Your task to perform on an android device: make emails show in primary in the gmail app Image 0: 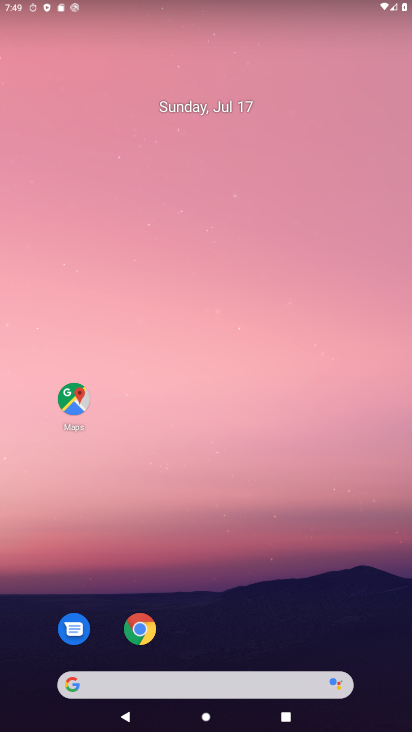
Step 0: drag from (247, 520) to (157, 115)
Your task to perform on an android device: make emails show in primary in the gmail app Image 1: 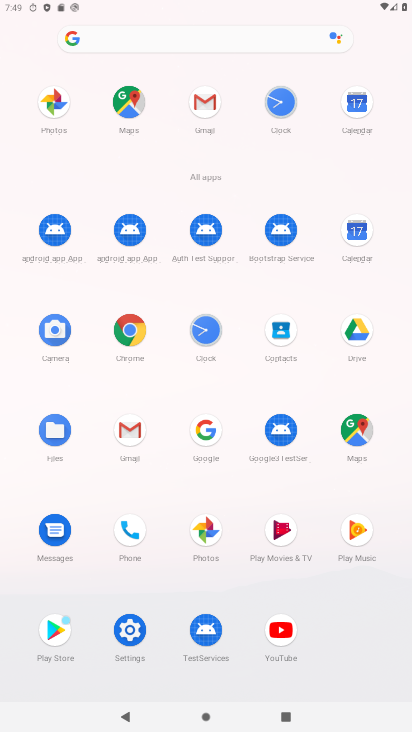
Step 1: click (130, 433)
Your task to perform on an android device: make emails show in primary in the gmail app Image 2: 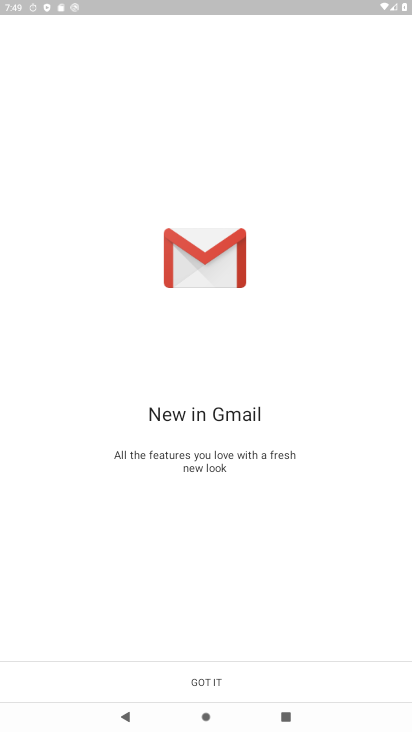
Step 2: click (215, 676)
Your task to perform on an android device: make emails show in primary in the gmail app Image 3: 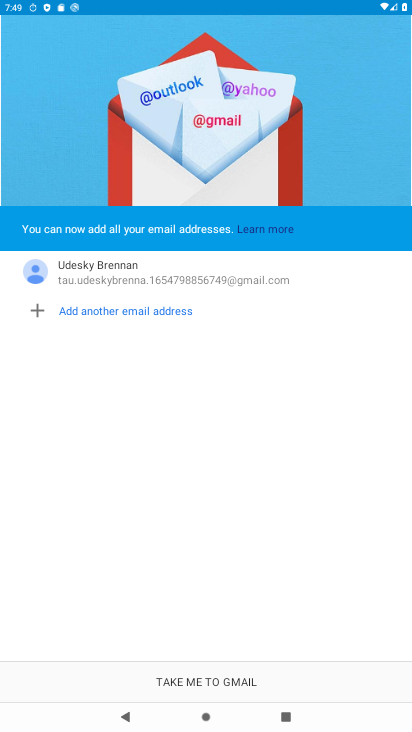
Step 3: click (234, 693)
Your task to perform on an android device: make emails show in primary in the gmail app Image 4: 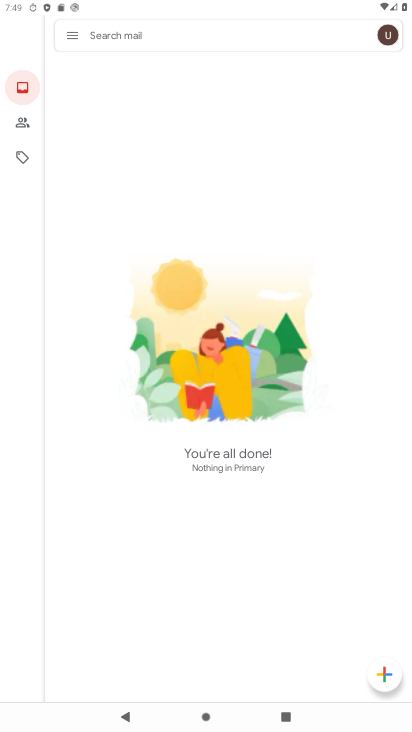
Step 4: click (74, 29)
Your task to perform on an android device: make emails show in primary in the gmail app Image 5: 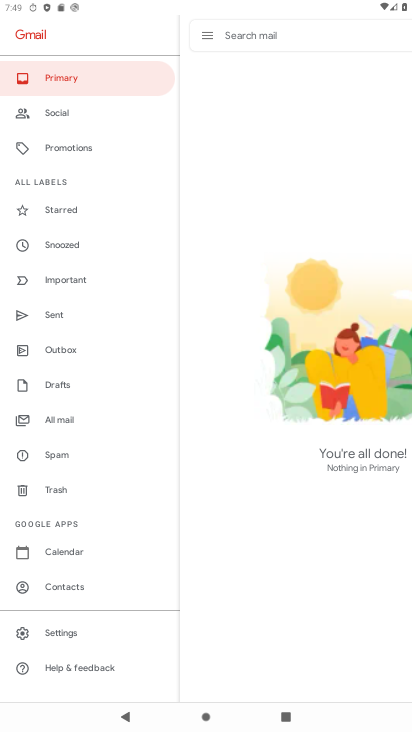
Step 5: drag from (76, 648) to (118, 343)
Your task to perform on an android device: make emails show in primary in the gmail app Image 6: 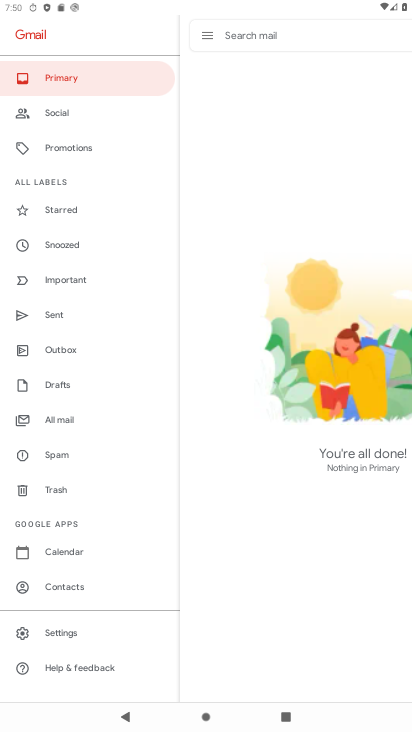
Step 6: click (78, 627)
Your task to perform on an android device: make emails show in primary in the gmail app Image 7: 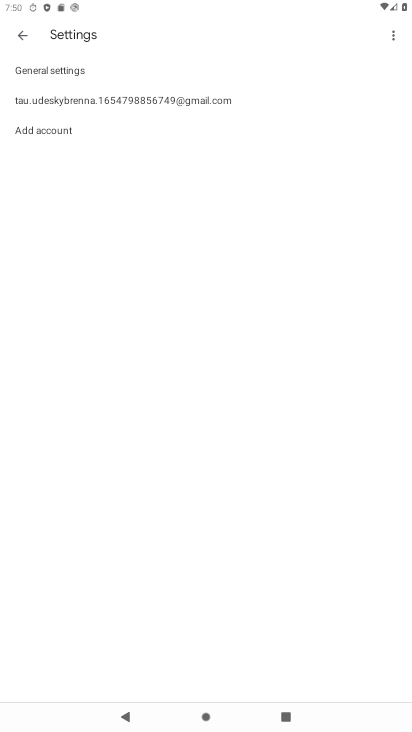
Step 7: click (121, 98)
Your task to perform on an android device: make emails show in primary in the gmail app Image 8: 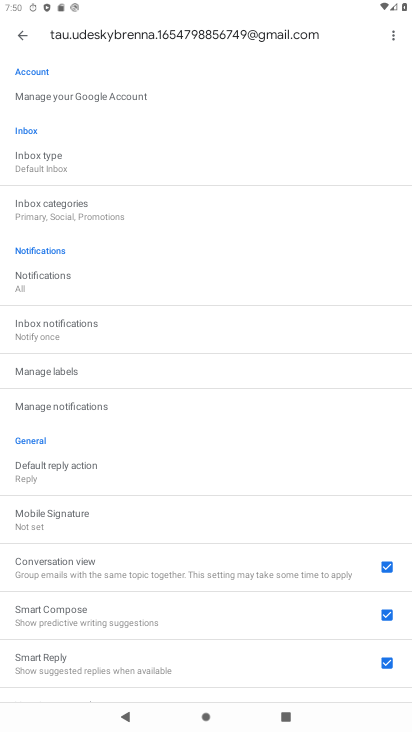
Step 8: click (61, 211)
Your task to perform on an android device: make emails show in primary in the gmail app Image 9: 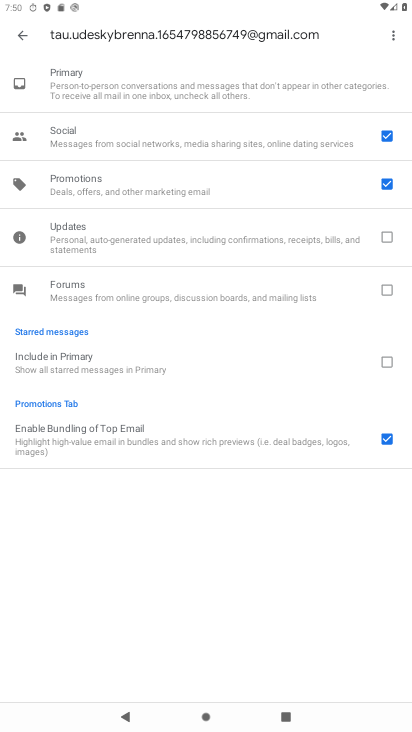
Step 9: task complete